Your task to perform on an android device: open sync settings in chrome Image 0: 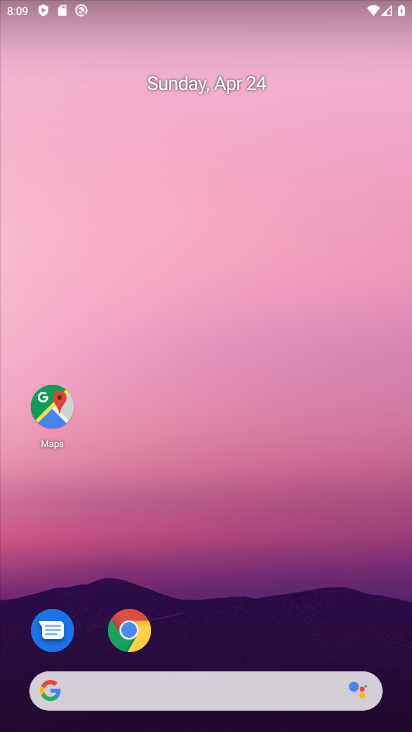
Step 0: click (133, 618)
Your task to perform on an android device: open sync settings in chrome Image 1: 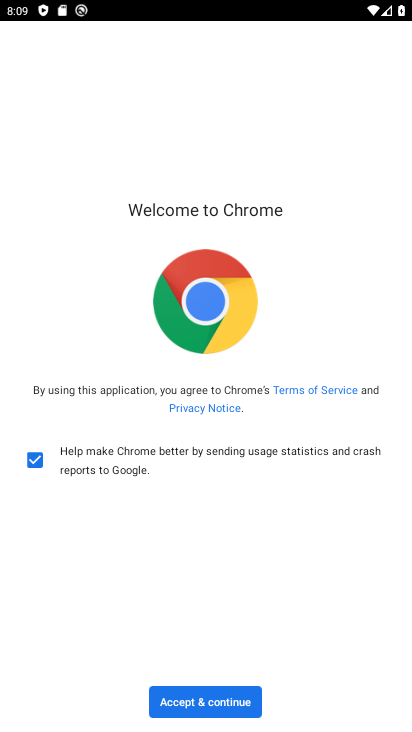
Step 1: click (238, 701)
Your task to perform on an android device: open sync settings in chrome Image 2: 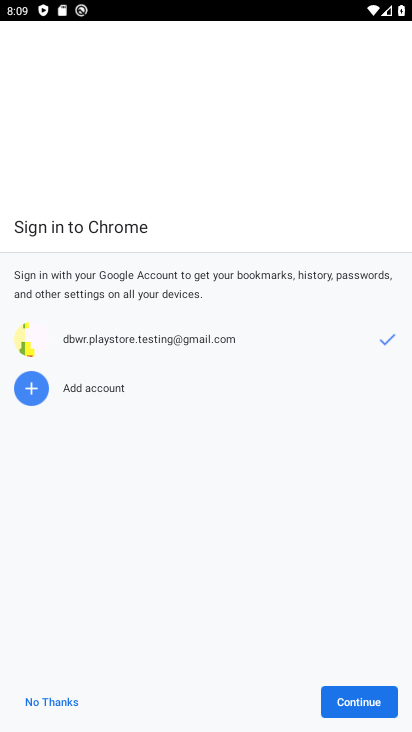
Step 2: click (356, 692)
Your task to perform on an android device: open sync settings in chrome Image 3: 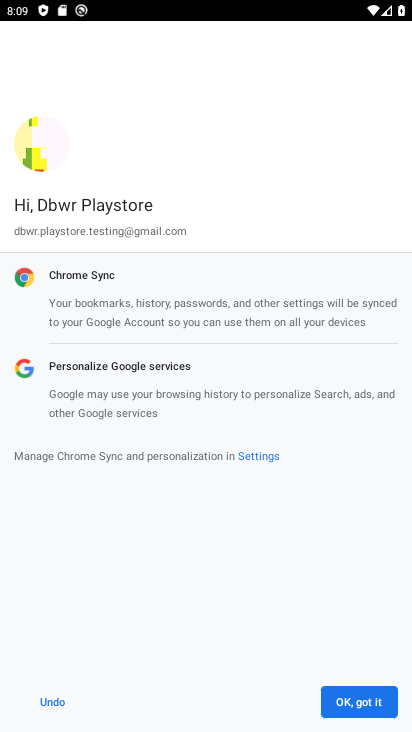
Step 3: click (356, 692)
Your task to perform on an android device: open sync settings in chrome Image 4: 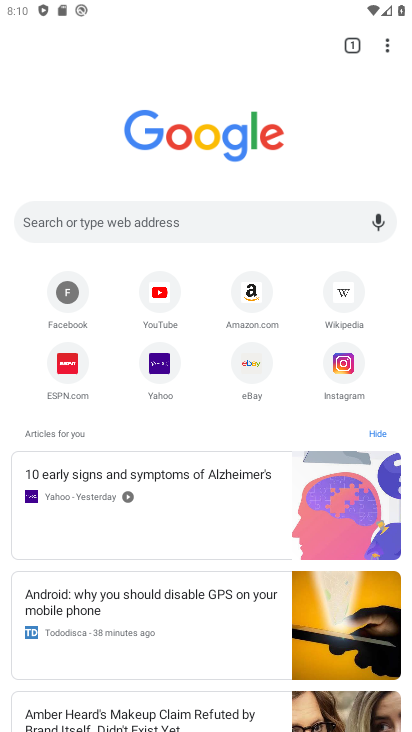
Step 4: drag from (381, 35) to (227, 379)
Your task to perform on an android device: open sync settings in chrome Image 5: 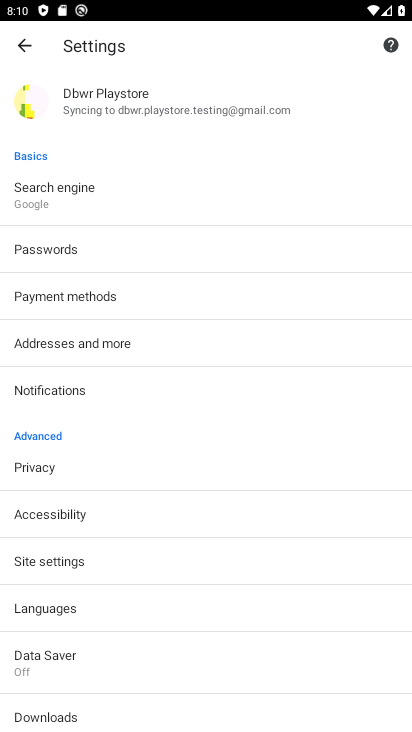
Step 5: click (112, 99)
Your task to perform on an android device: open sync settings in chrome Image 6: 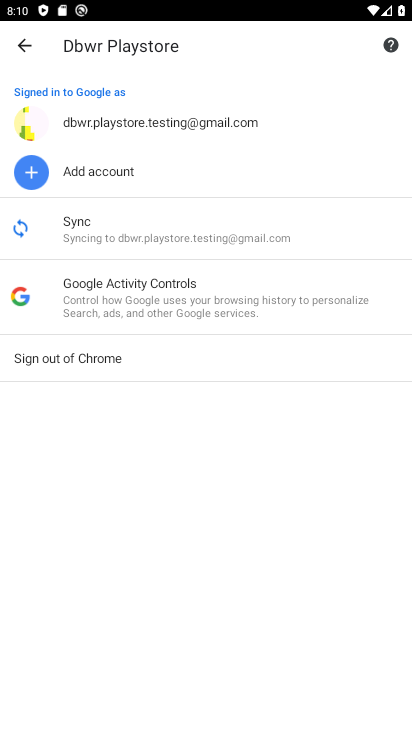
Step 6: click (97, 220)
Your task to perform on an android device: open sync settings in chrome Image 7: 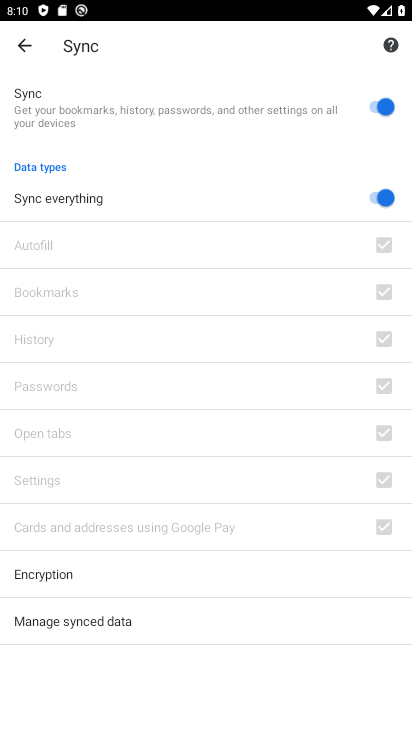
Step 7: task complete